Your task to perform on an android device: open wifi settings Image 0: 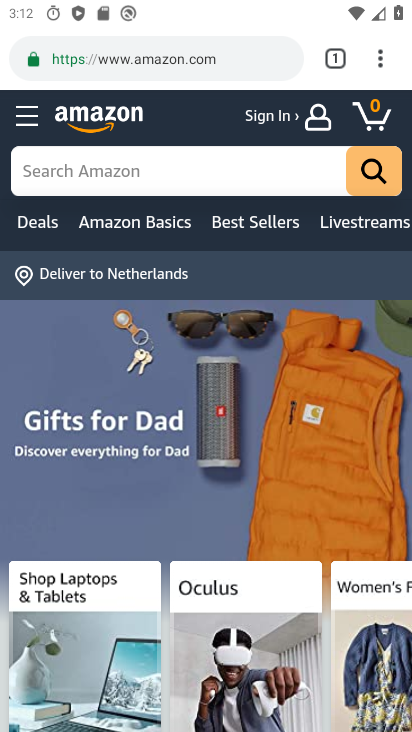
Step 0: press back button
Your task to perform on an android device: open wifi settings Image 1: 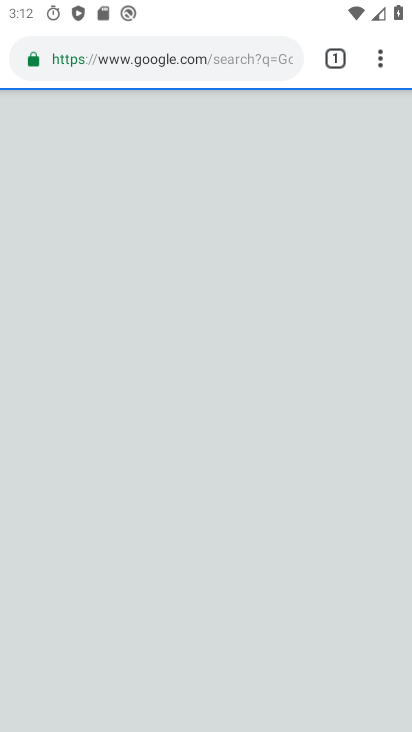
Step 1: press home button
Your task to perform on an android device: open wifi settings Image 2: 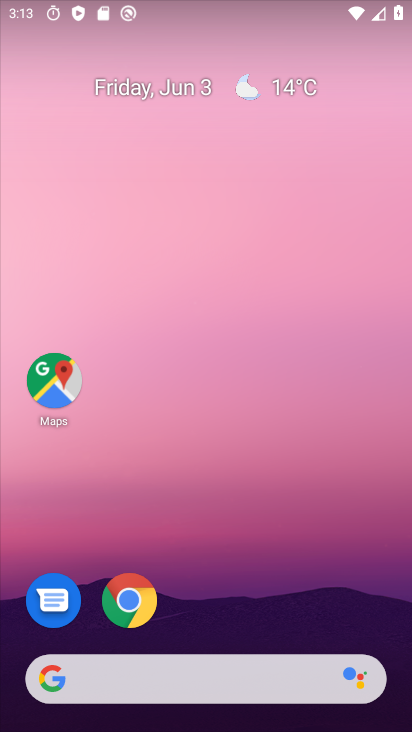
Step 2: drag from (250, 496) to (231, 17)
Your task to perform on an android device: open wifi settings Image 3: 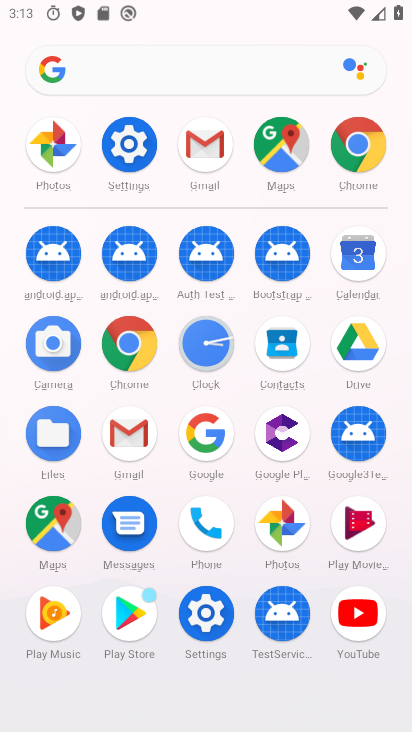
Step 3: click (124, 137)
Your task to perform on an android device: open wifi settings Image 4: 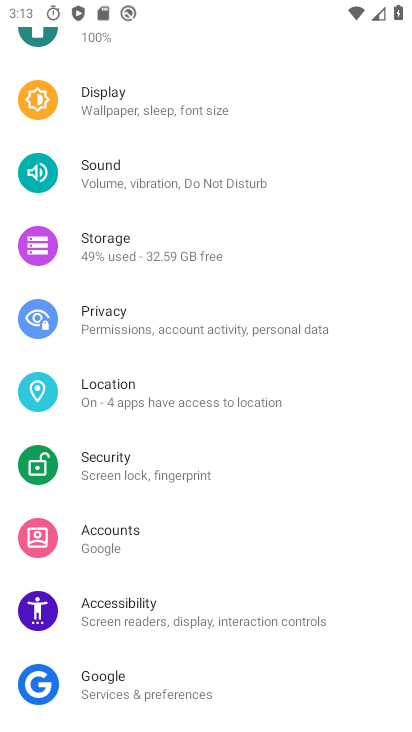
Step 4: drag from (216, 108) to (217, 584)
Your task to perform on an android device: open wifi settings Image 5: 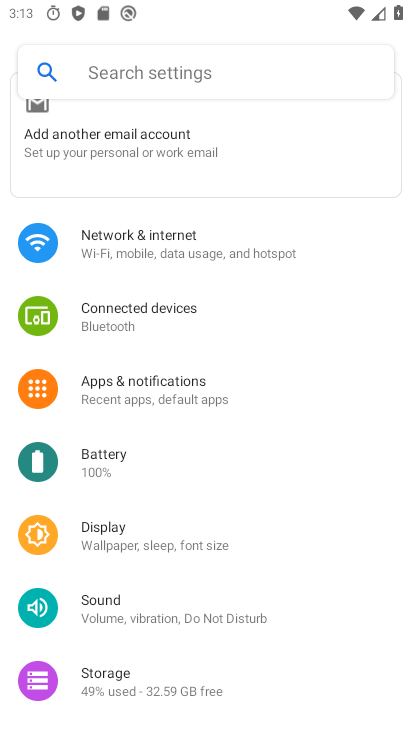
Step 5: click (161, 230)
Your task to perform on an android device: open wifi settings Image 6: 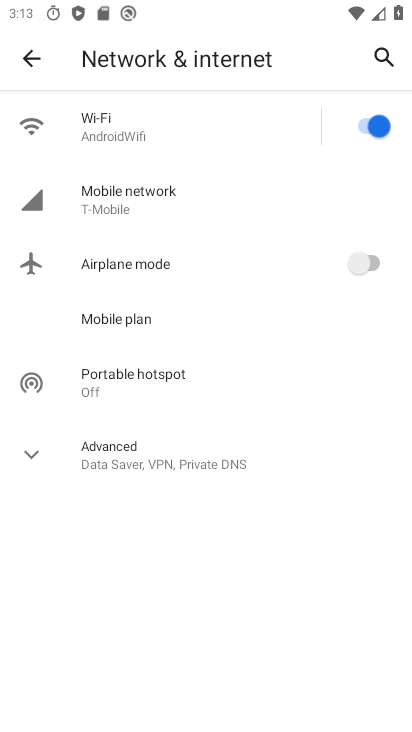
Step 6: click (115, 129)
Your task to perform on an android device: open wifi settings Image 7: 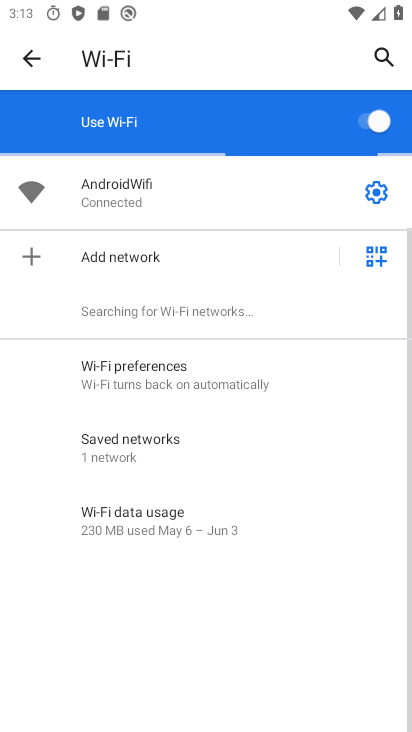
Step 7: task complete